Your task to perform on an android device: Do I have any events this weekend? Image 0: 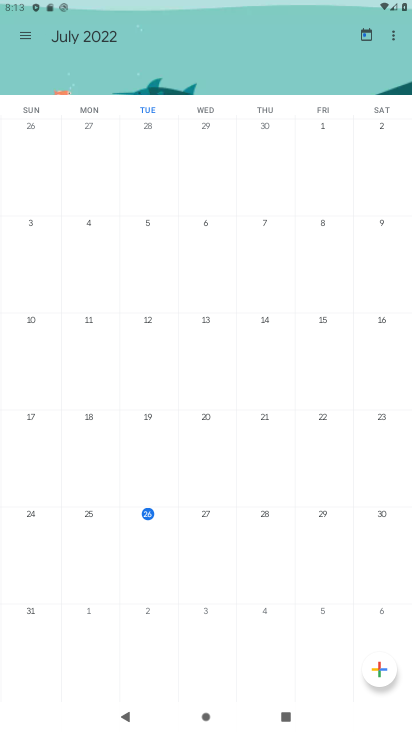
Step 0: press home button
Your task to perform on an android device: Do I have any events this weekend? Image 1: 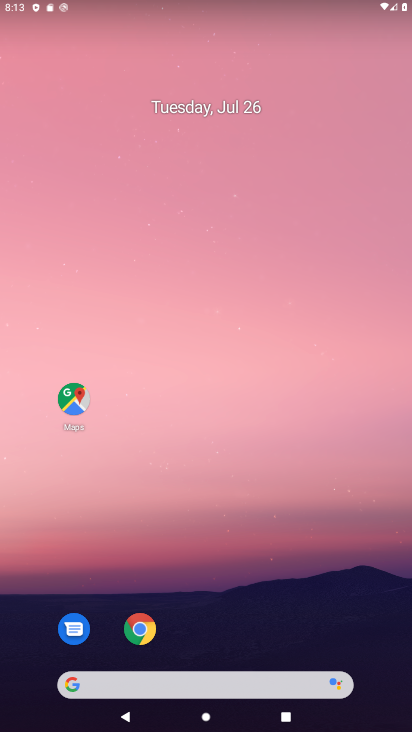
Step 1: drag from (246, 652) to (218, 138)
Your task to perform on an android device: Do I have any events this weekend? Image 2: 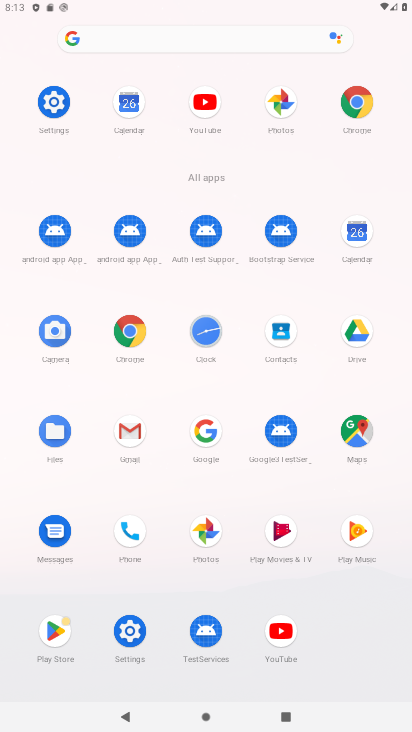
Step 2: click (346, 237)
Your task to perform on an android device: Do I have any events this weekend? Image 3: 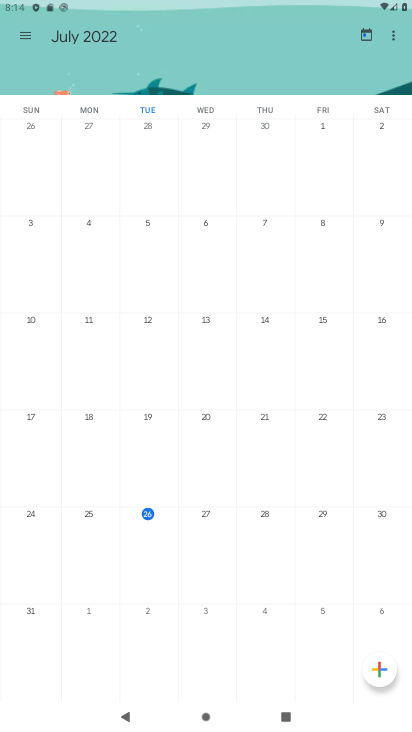
Step 3: click (28, 35)
Your task to perform on an android device: Do I have any events this weekend? Image 4: 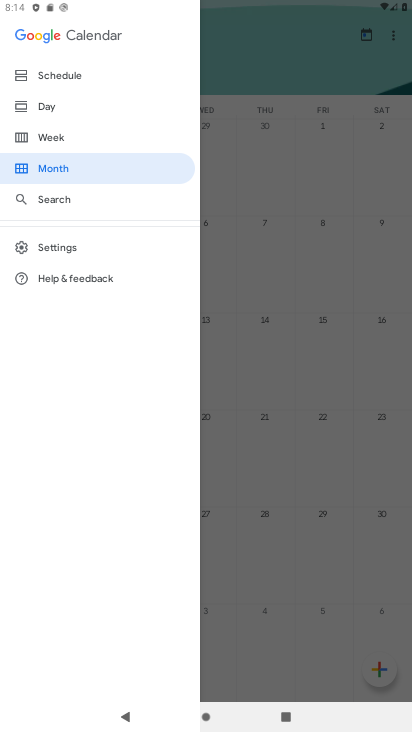
Step 4: click (45, 136)
Your task to perform on an android device: Do I have any events this weekend? Image 5: 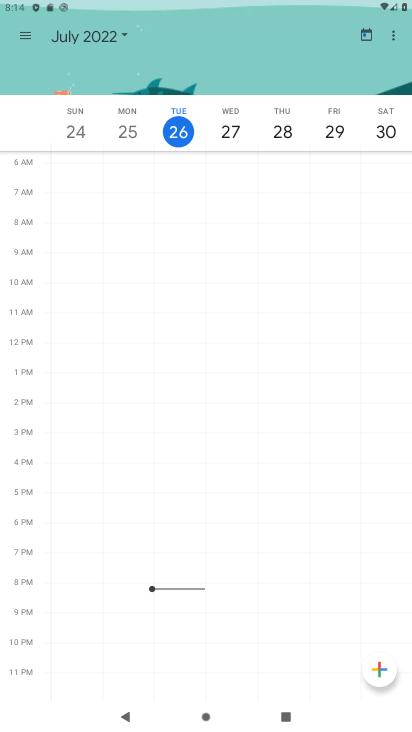
Step 5: task complete